Your task to perform on an android device: Show me recent news Image 0: 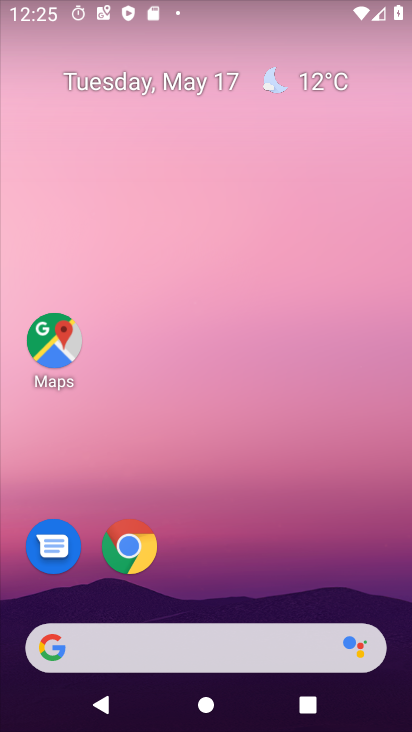
Step 0: click (61, 647)
Your task to perform on an android device: Show me recent news Image 1: 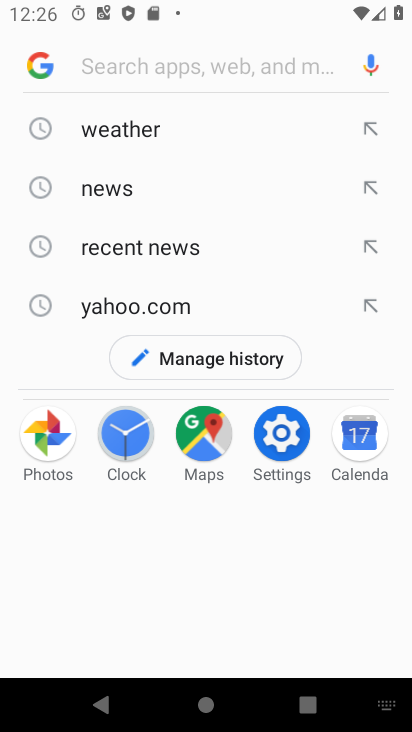
Step 1: click (122, 188)
Your task to perform on an android device: Show me recent news Image 2: 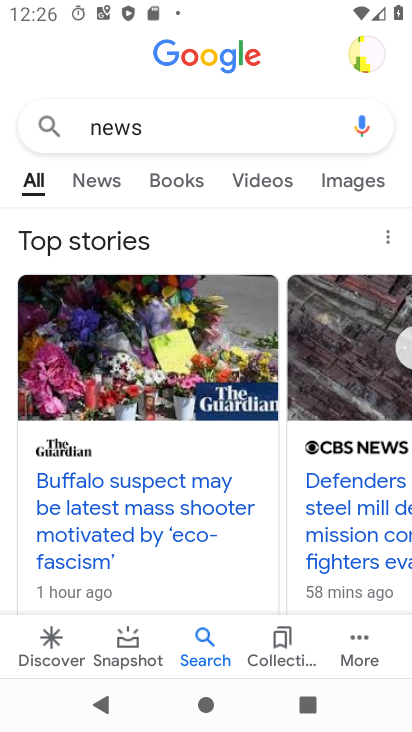
Step 2: click (97, 186)
Your task to perform on an android device: Show me recent news Image 3: 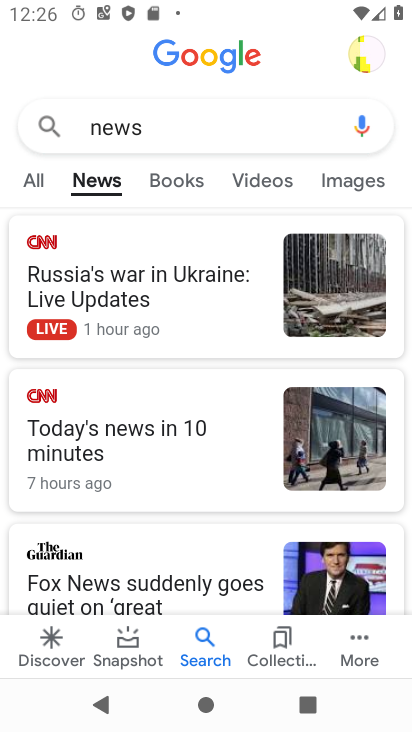
Step 3: task complete